Your task to perform on an android device: turn smart compose on in the gmail app Image 0: 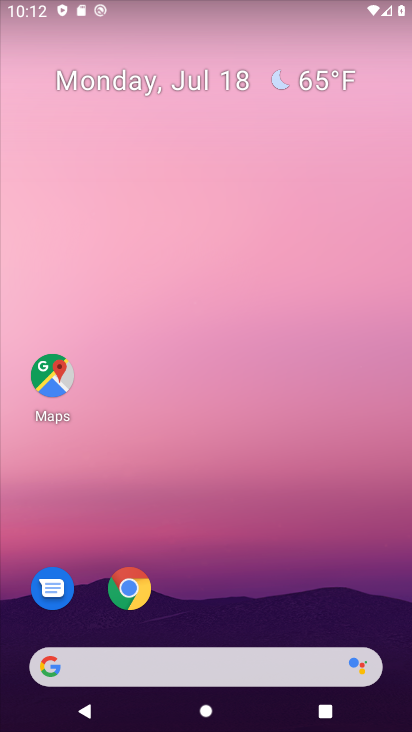
Step 0: press home button
Your task to perform on an android device: turn smart compose on in the gmail app Image 1: 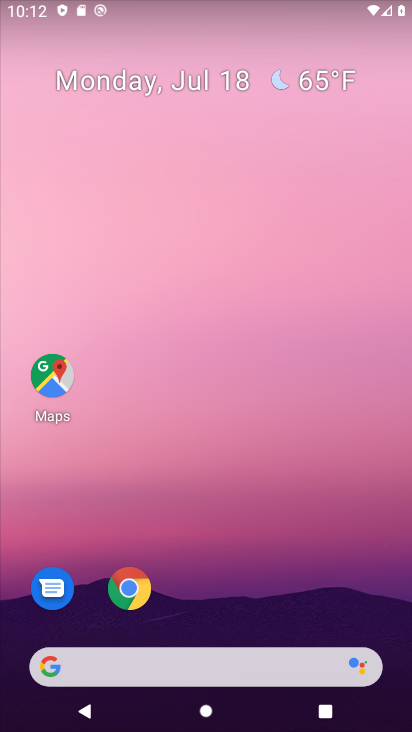
Step 1: drag from (282, 580) to (397, 226)
Your task to perform on an android device: turn smart compose on in the gmail app Image 2: 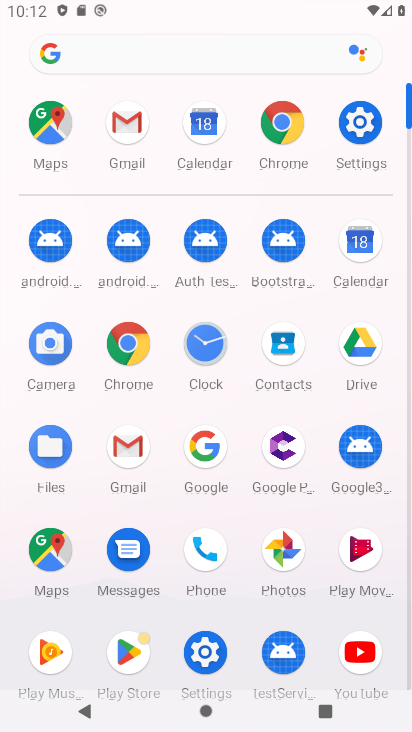
Step 2: click (128, 128)
Your task to perform on an android device: turn smart compose on in the gmail app Image 3: 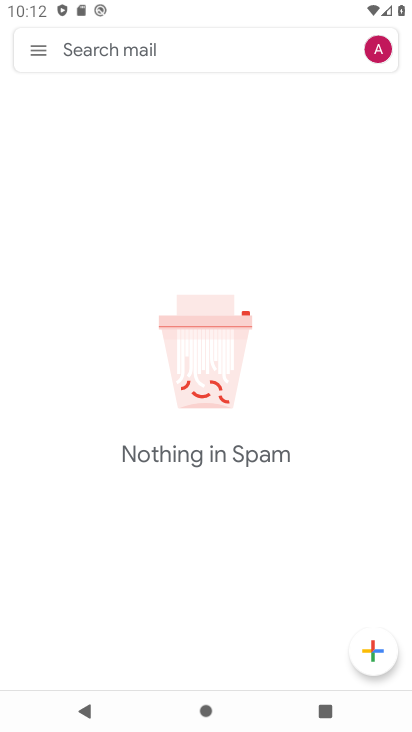
Step 3: click (27, 45)
Your task to perform on an android device: turn smart compose on in the gmail app Image 4: 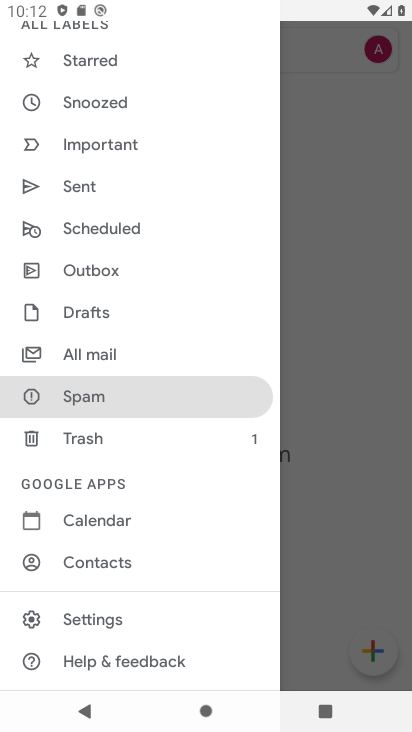
Step 4: click (78, 618)
Your task to perform on an android device: turn smart compose on in the gmail app Image 5: 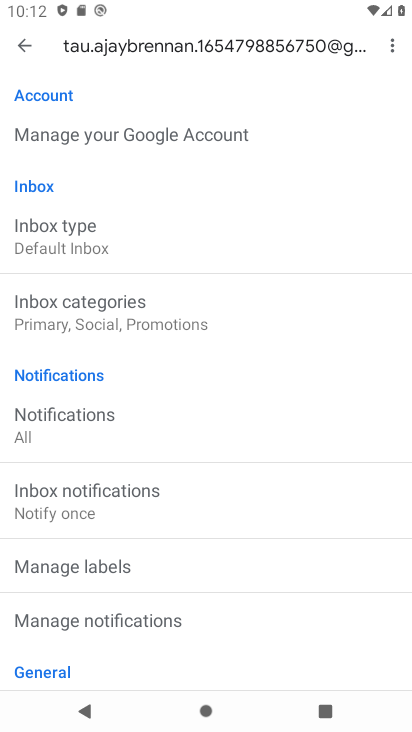
Step 5: task complete